Your task to perform on an android device: set the stopwatch Image 0: 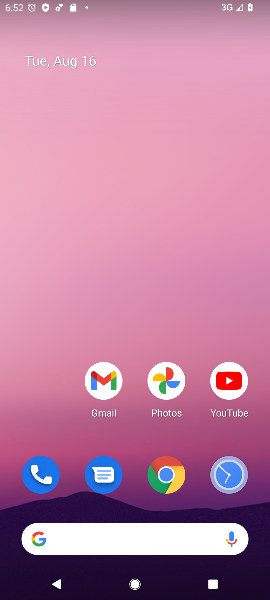
Step 0: drag from (203, 494) to (133, 72)
Your task to perform on an android device: set the stopwatch Image 1: 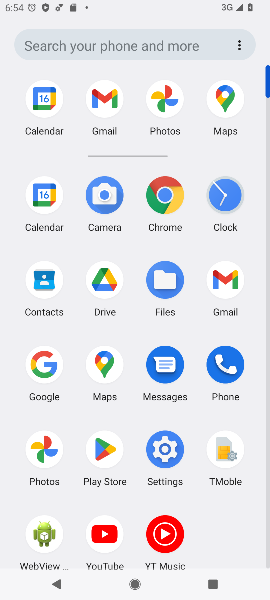
Step 1: click (221, 190)
Your task to perform on an android device: set the stopwatch Image 2: 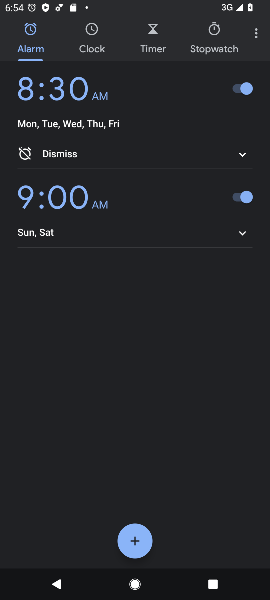
Step 2: click (221, 29)
Your task to perform on an android device: set the stopwatch Image 3: 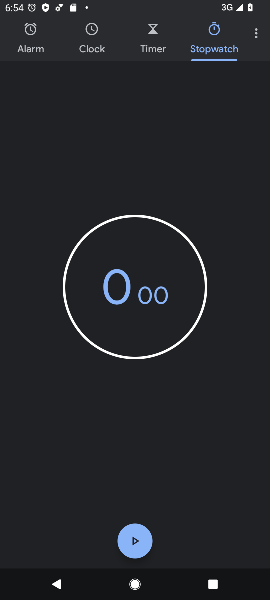
Step 3: click (140, 538)
Your task to perform on an android device: set the stopwatch Image 4: 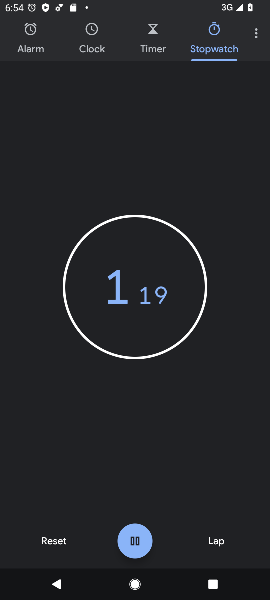
Step 4: click (140, 538)
Your task to perform on an android device: set the stopwatch Image 5: 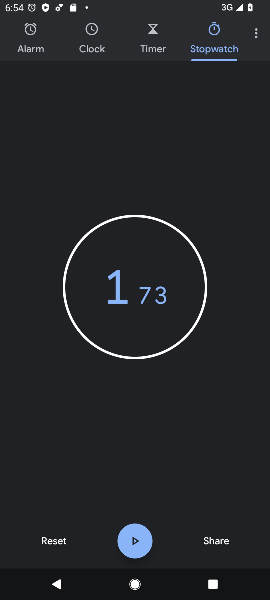
Step 5: task complete